Your task to perform on an android device: open app "Life360: Find Family & Friends" Image 0: 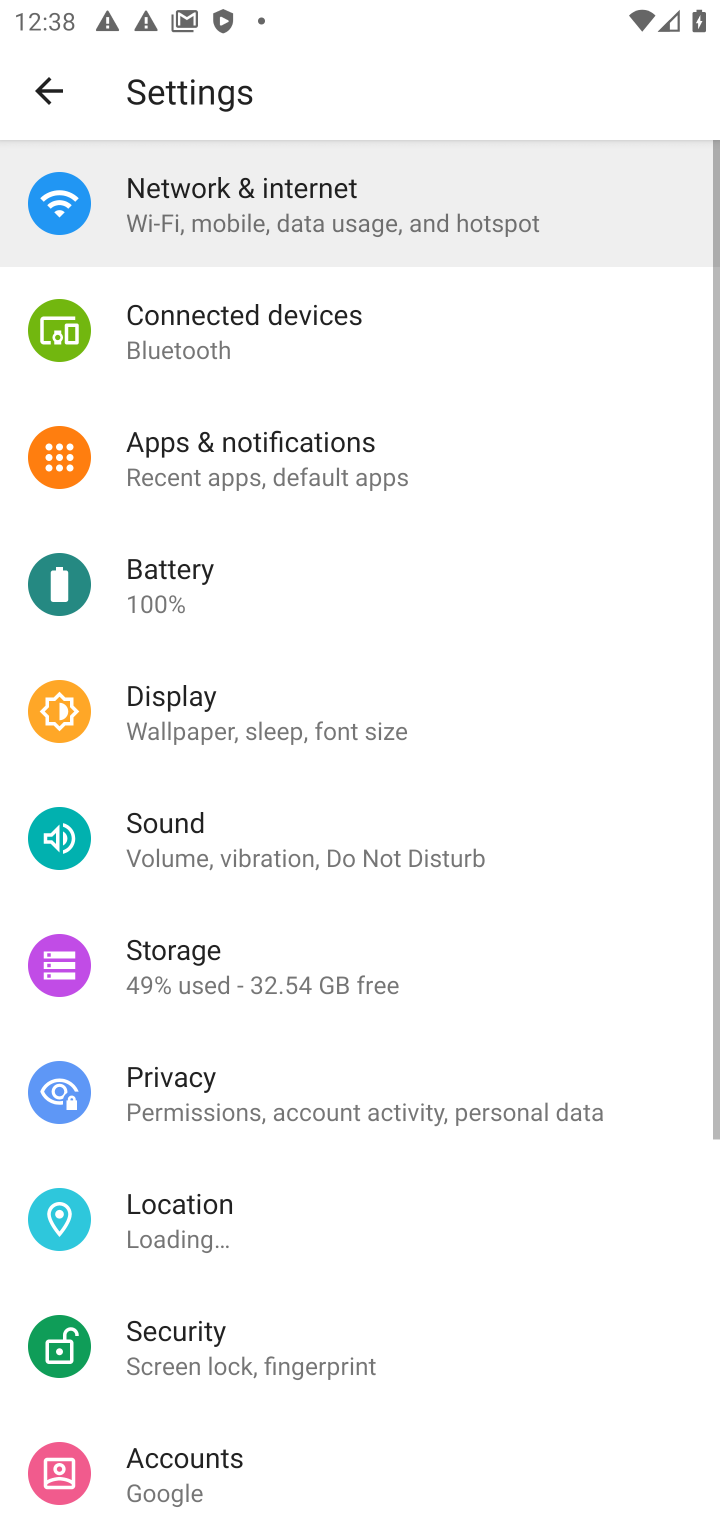
Step 0: press home button
Your task to perform on an android device: open app "Life360: Find Family & Friends" Image 1: 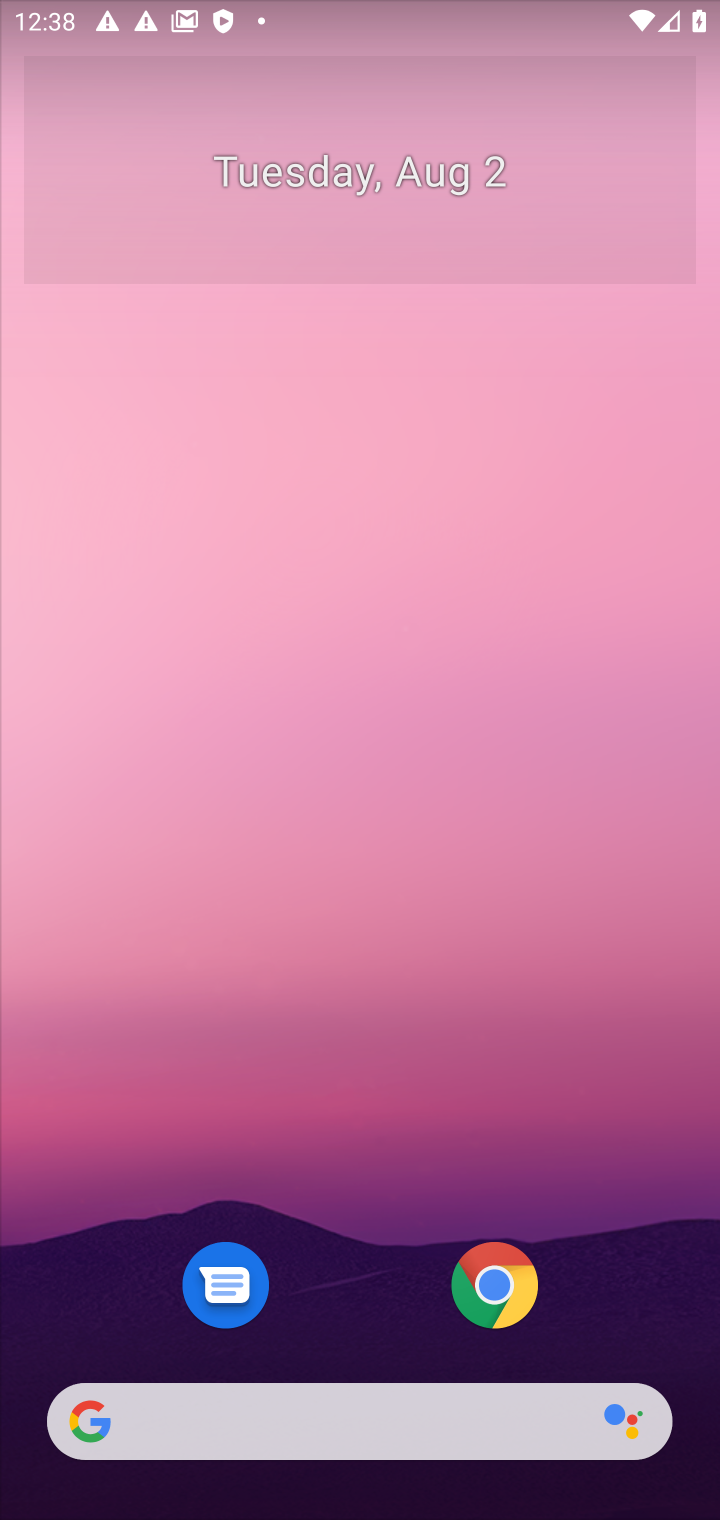
Step 1: drag from (439, 884) to (498, 193)
Your task to perform on an android device: open app "Life360: Find Family & Friends" Image 2: 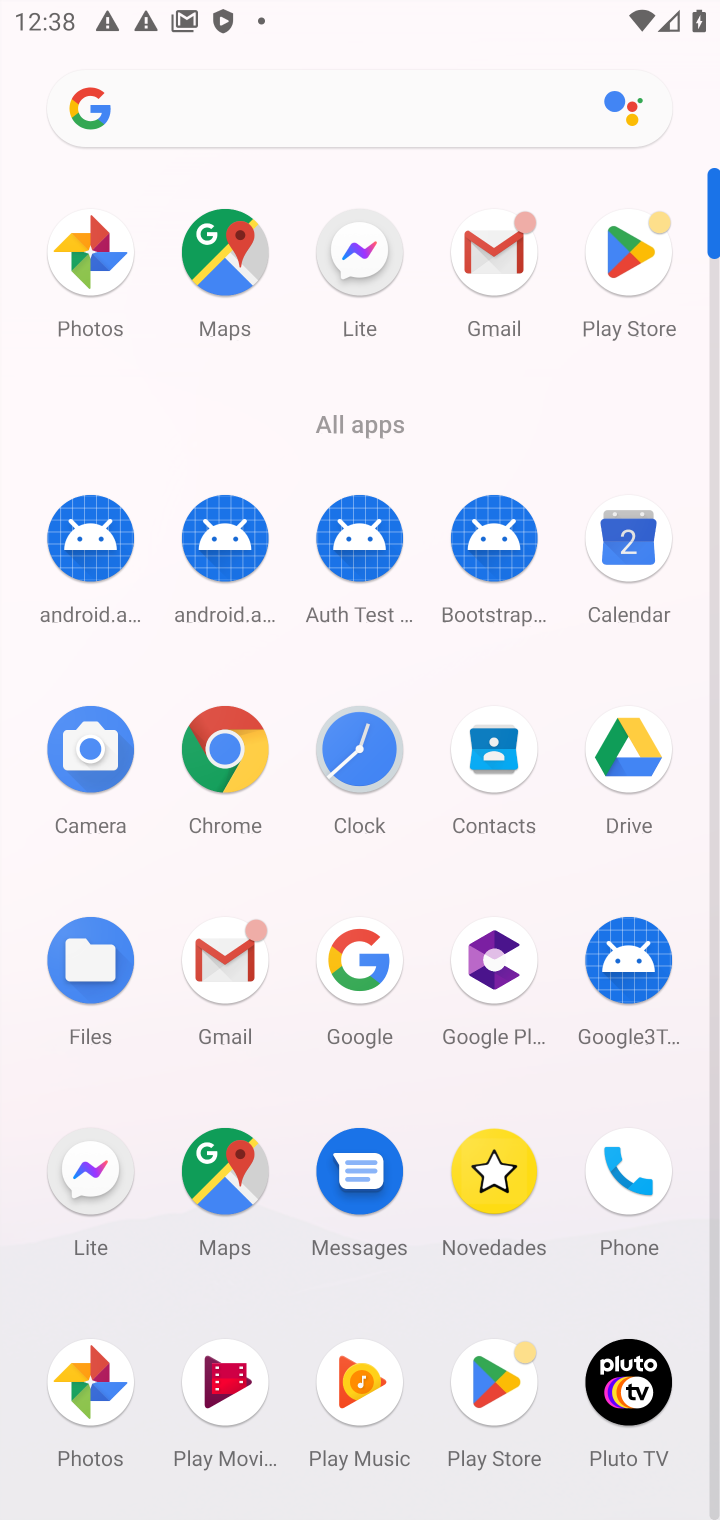
Step 2: click (505, 1389)
Your task to perform on an android device: open app "Life360: Find Family & Friends" Image 3: 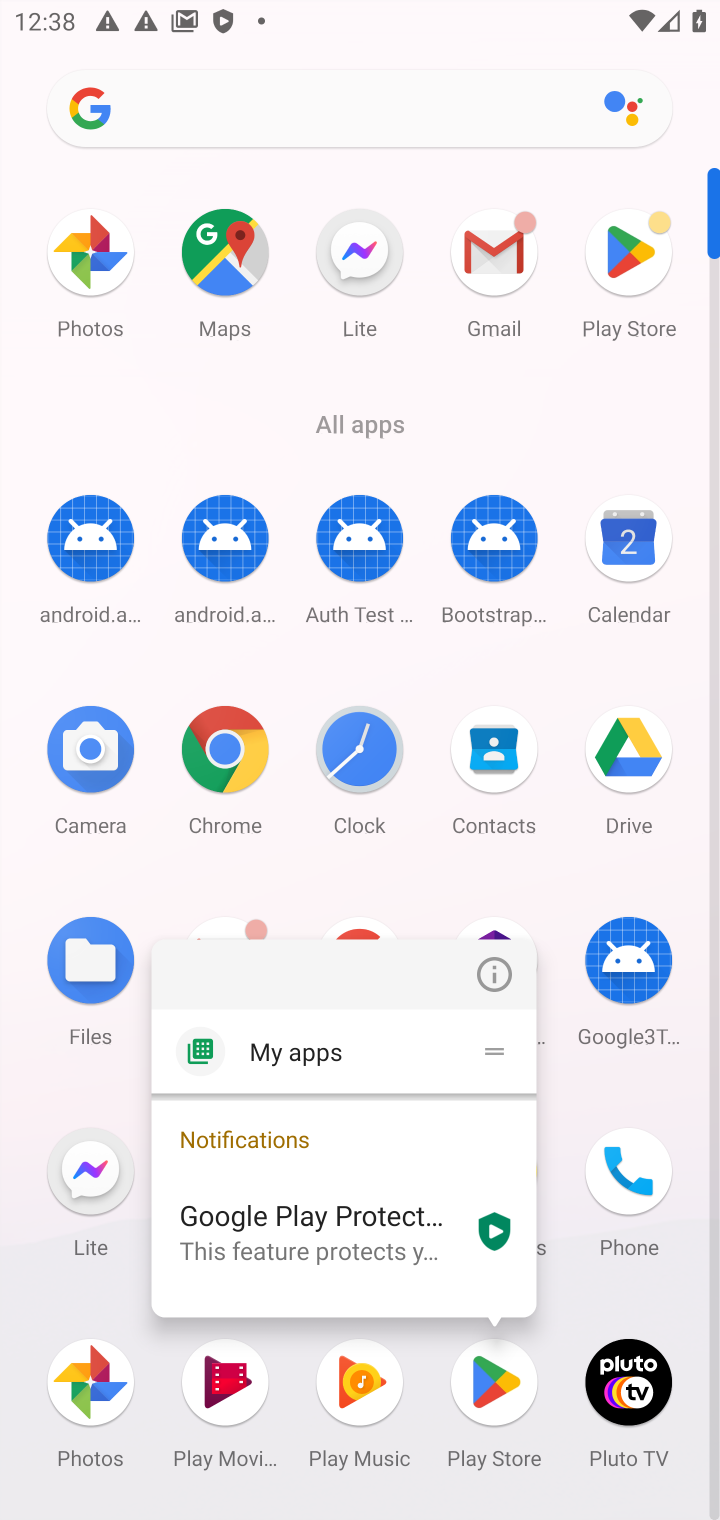
Step 3: click (488, 1386)
Your task to perform on an android device: open app "Life360: Find Family & Friends" Image 4: 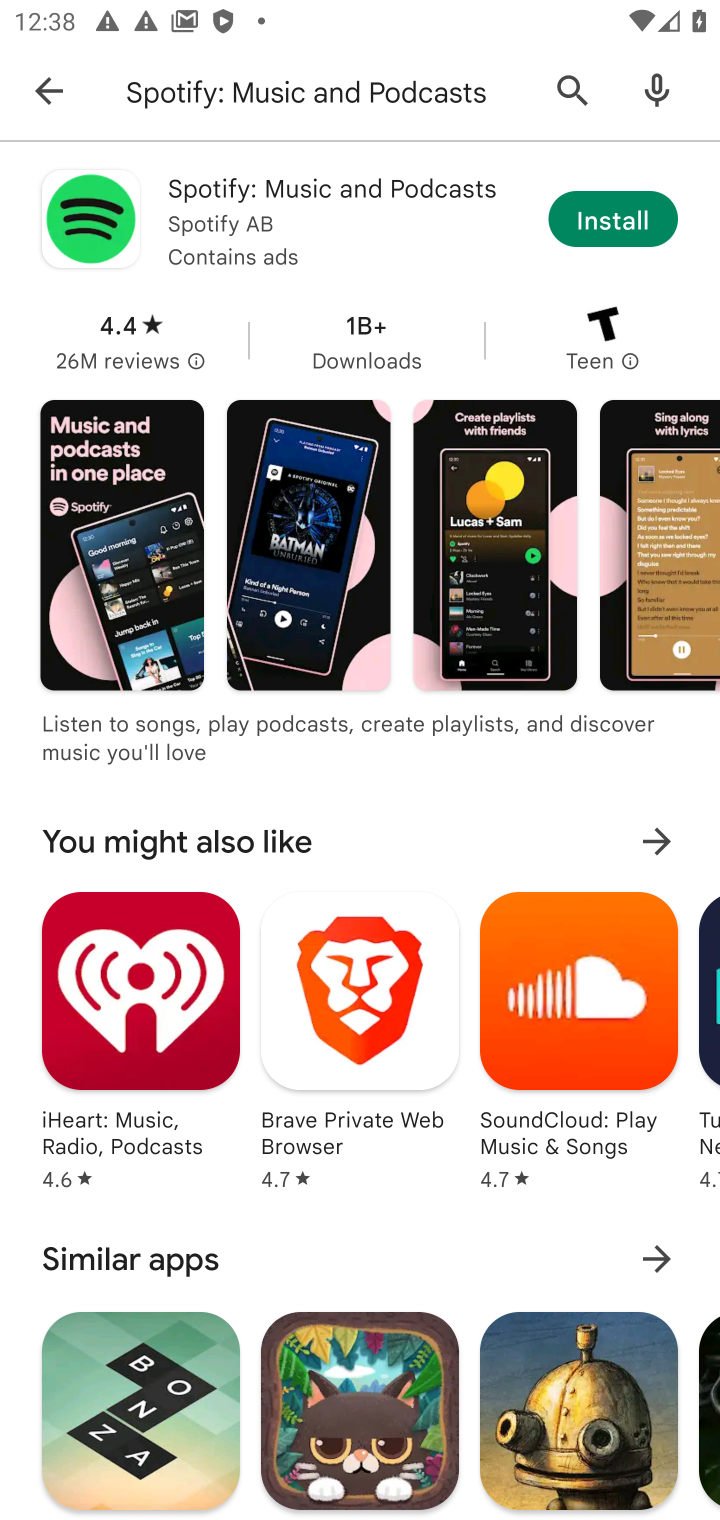
Step 4: click (411, 113)
Your task to perform on an android device: open app "Life360: Find Family & Friends" Image 5: 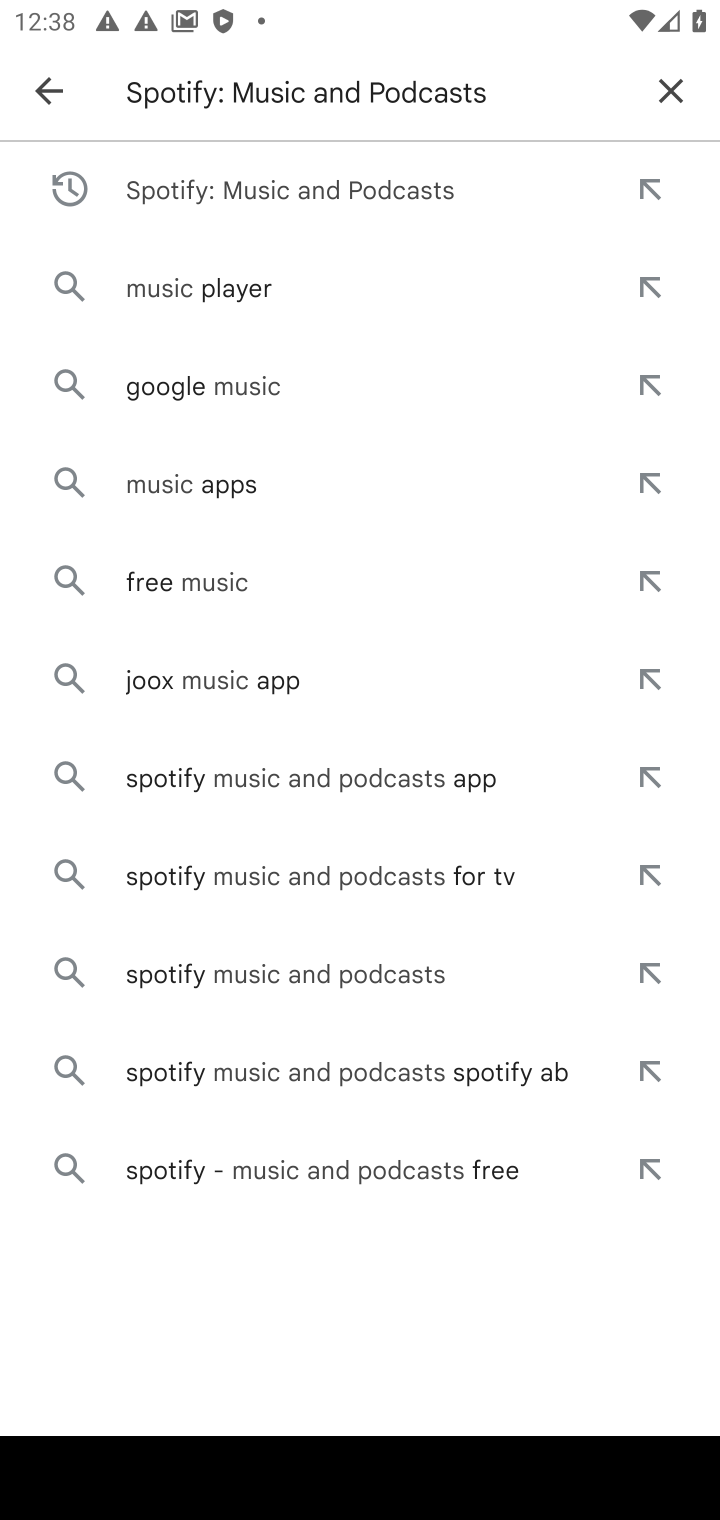
Step 5: click (666, 101)
Your task to perform on an android device: open app "Life360: Find Family & Friends" Image 6: 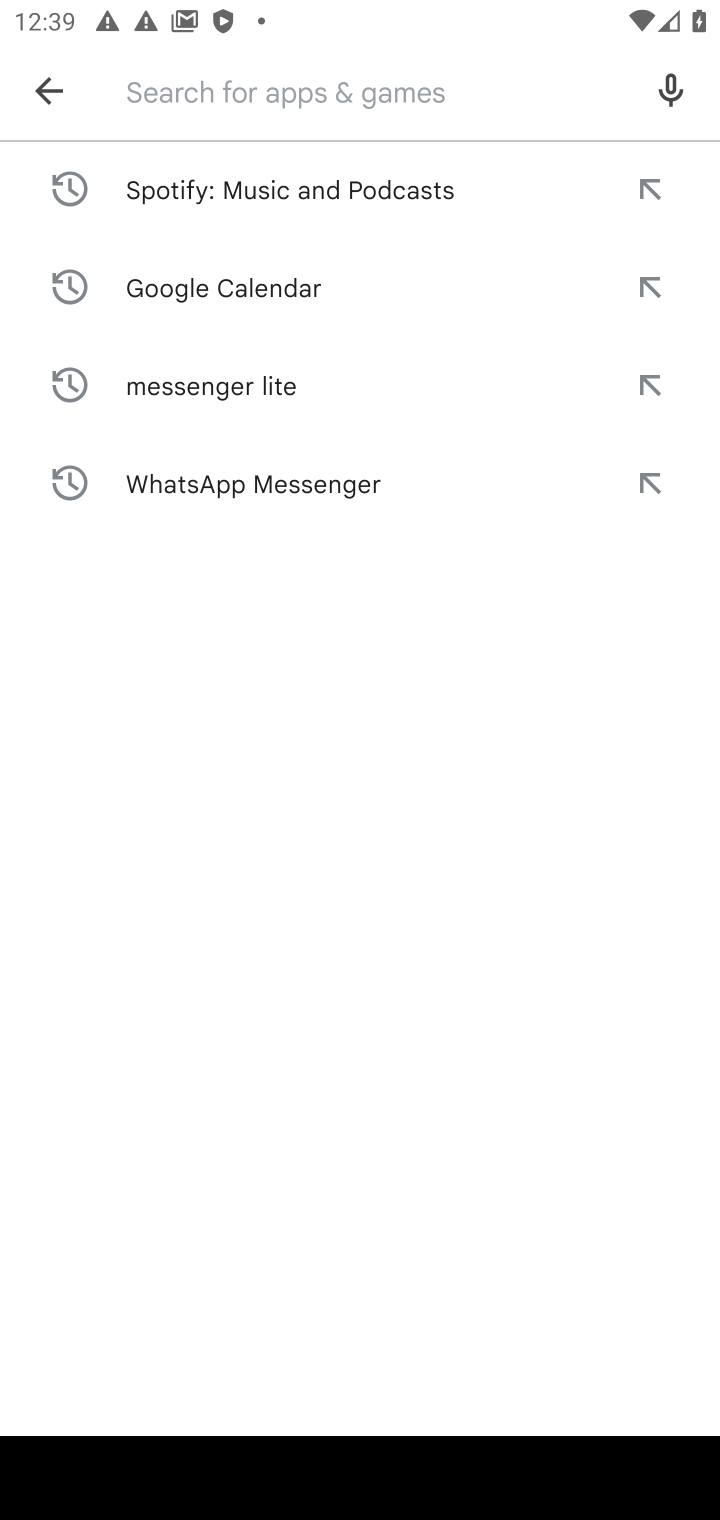
Step 6: type "Life360: Find Family & Friends"
Your task to perform on an android device: open app "Life360: Find Family & Friends" Image 7: 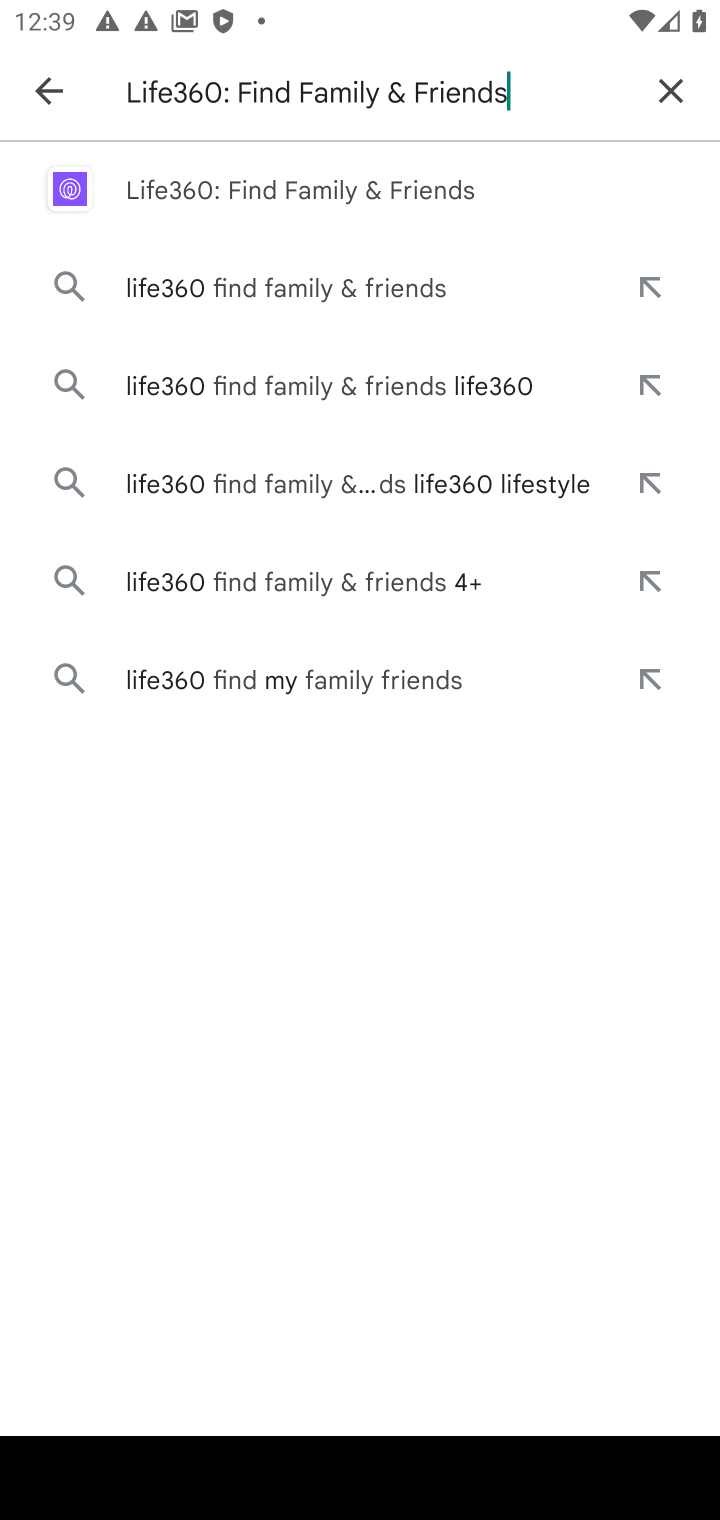
Step 7: press enter
Your task to perform on an android device: open app "Life360: Find Family & Friends" Image 8: 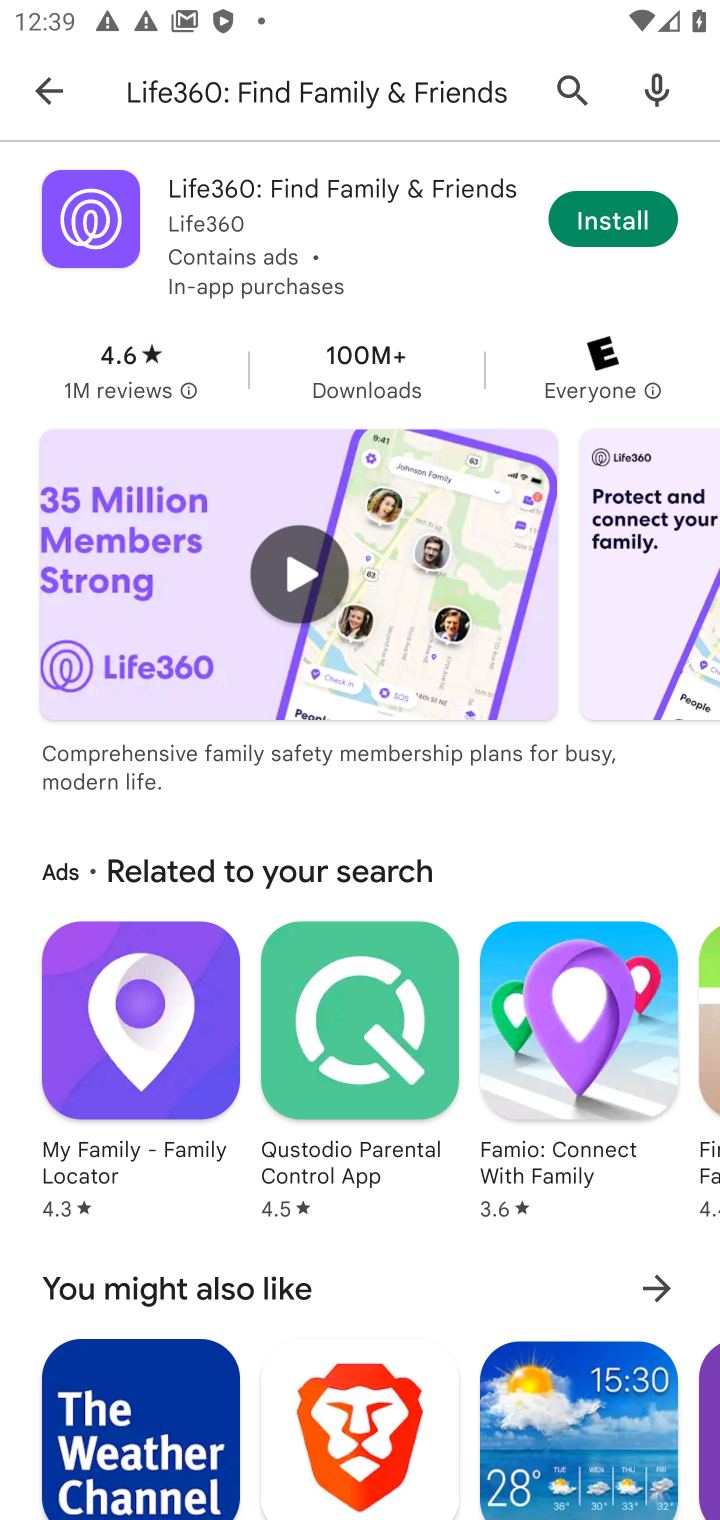
Step 8: task complete